Your task to perform on an android device: Turn on the flashlight Image 0: 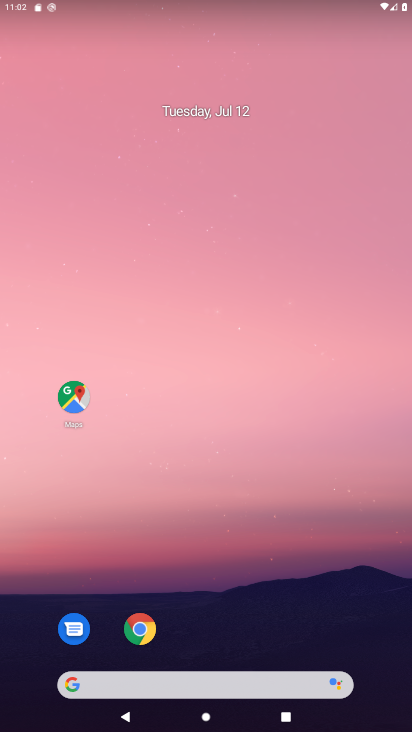
Step 0: drag from (305, 581) to (301, 170)
Your task to perform on an android device: Turn on the flashlight Image 1: 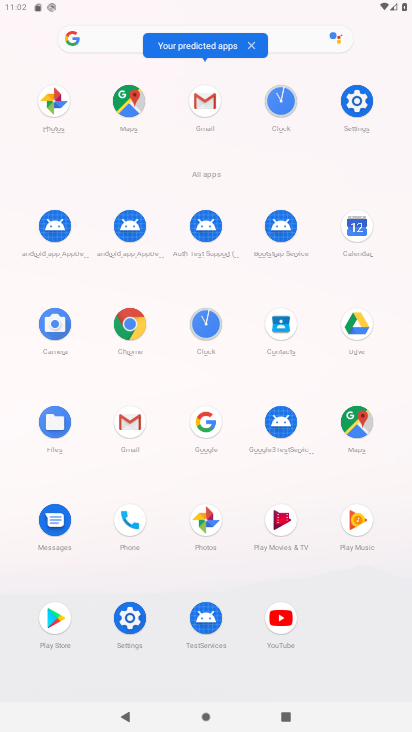
Step 1: click (358, 107)
Your task to perform on an android device: Turn on the flashlight Image 2: 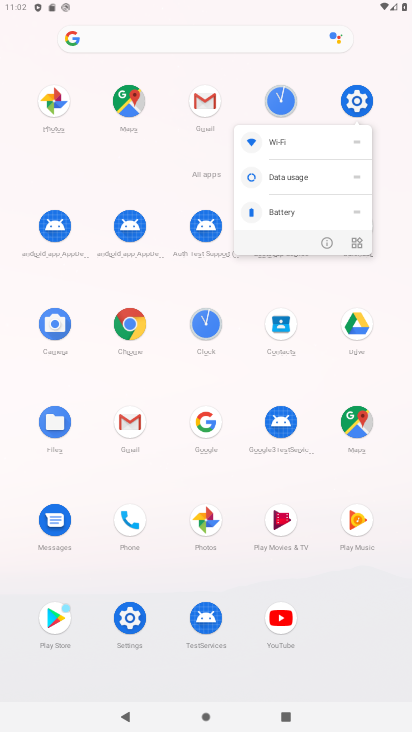
Step 2: click (353, 100)
Your task to perform on an android device: Turn on the flashlight Image 3: 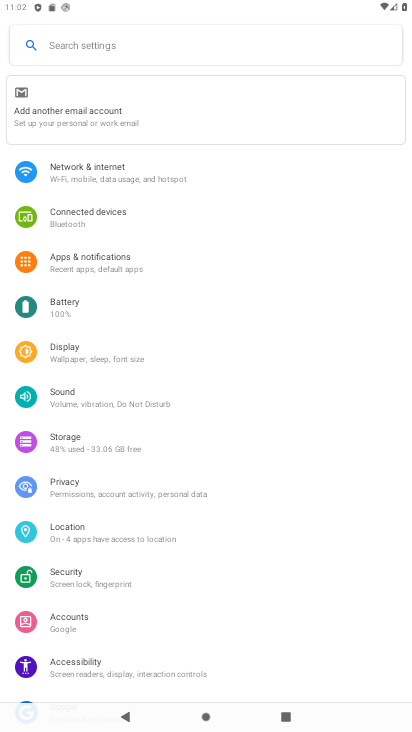
Step 3: task complete